Your task to perform on an android device: toggle airplane mode Image 0: 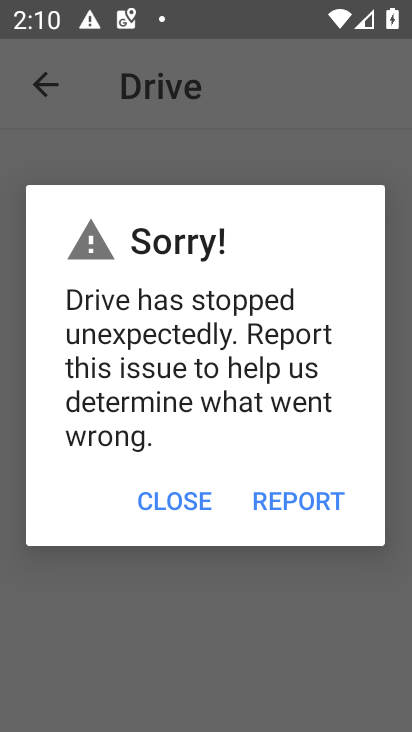
Step 0: press home button
Your task to perform on an android device: toggle airplane mode Image 1: 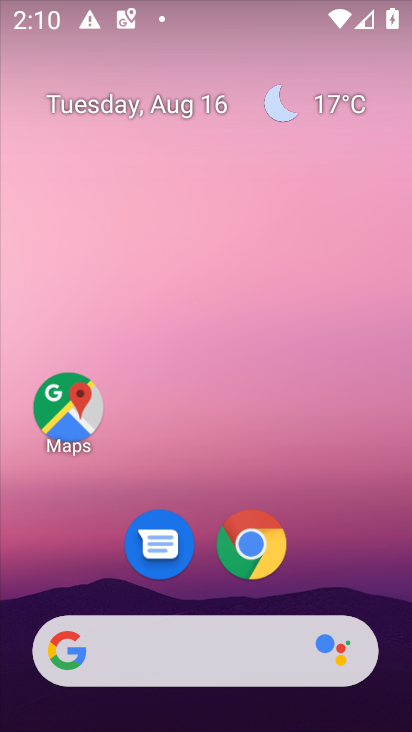
Step 1: drag from (176, 645) to (151, 104)
Your task to perform on an android device: toggle airplane mode Image 2: 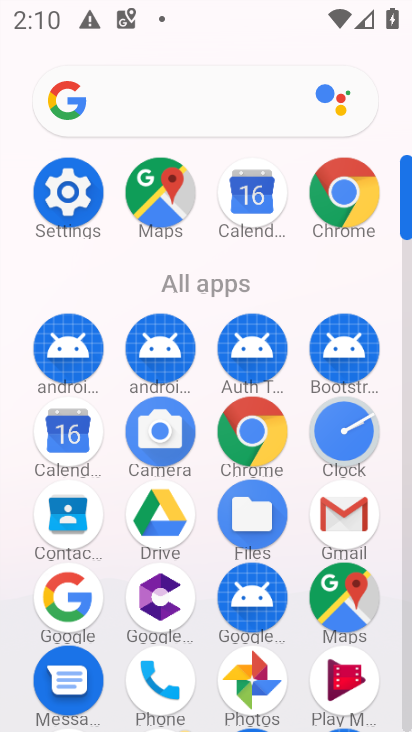
Step 2: click (67, 194)
Your task to perform on an android device: toggle airplane mode Image 3: 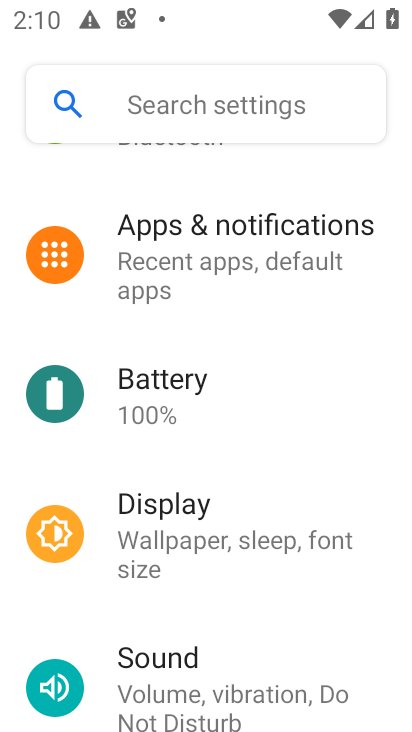
Step 3: drag from (221, 597) to (305, 467)
Your task to perform on an android device: toggle airplane mode Image 4: 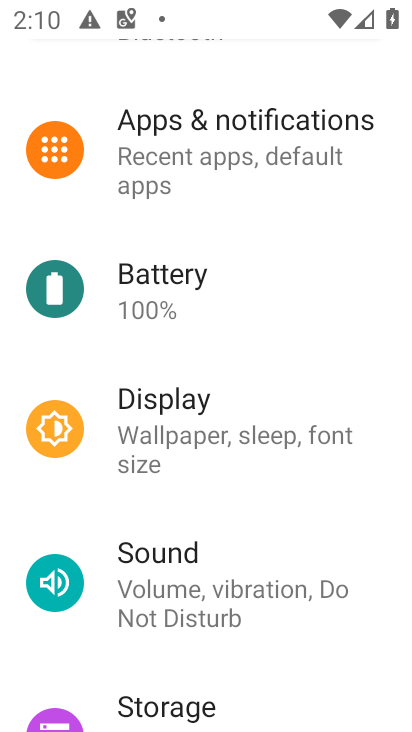
Step 4: drag from (193, 650) to (306, 502)
Your task to perform on an android device: toggle airplane mode Image 5: 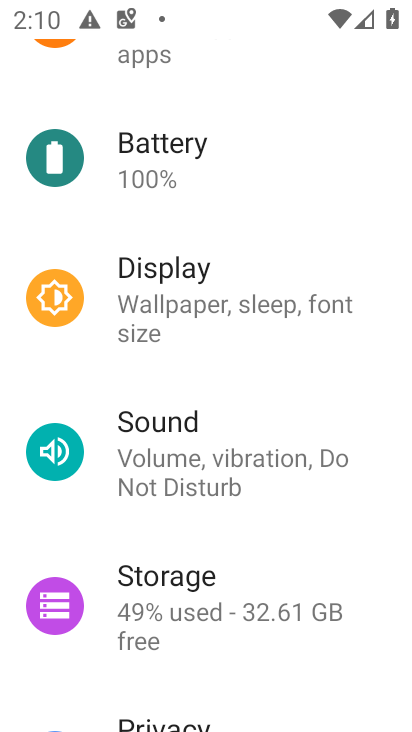
Step 5: drag from (231, 632) to (267, 505)
Your task to perform on an android device: toggle airplane mode Image 6: 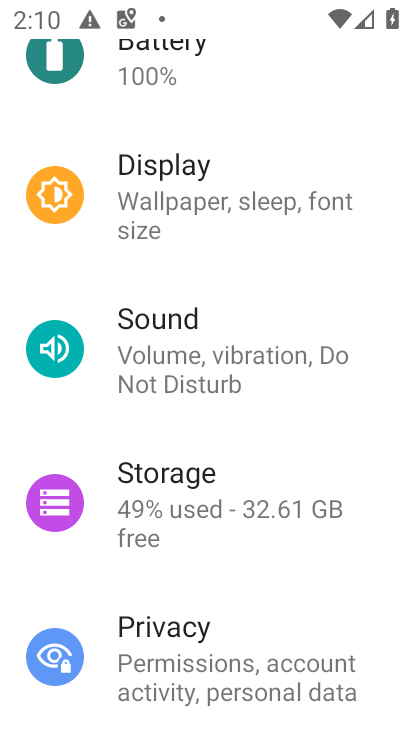
Step 6: drag from (196, 266) to (202, 499)
Your task to perform on an android device: toggle airplane mode Image 7: 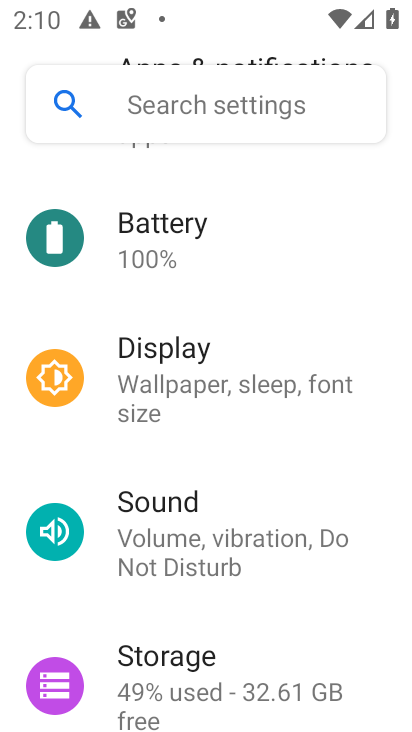
Step 7: drag from (203, 255) to (255, 438)
Your task to perform on an android device: toggle airplane mode Image 8: 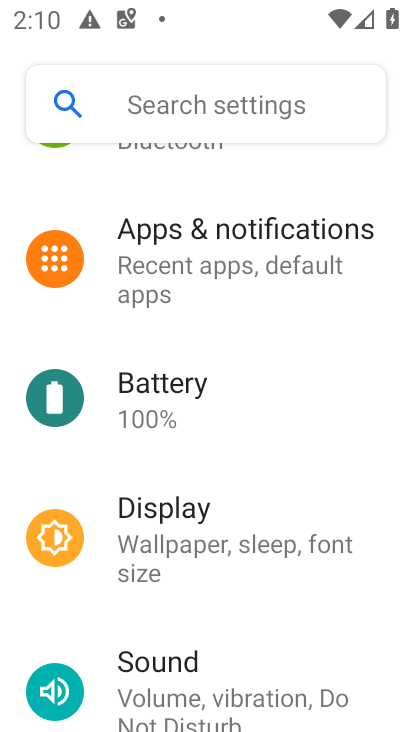
Step 8: drag from (216, 196) to (252, 419)
Your task to perform on an android device: toggle airplane mode Image 9: 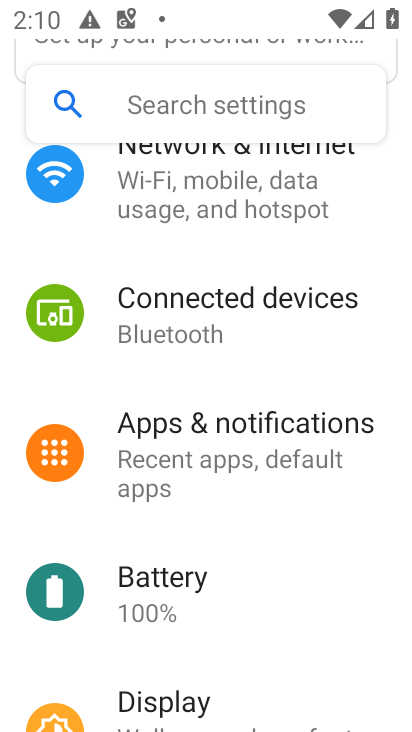
Step 9: drag from (223, 252) to (261, 408)
Your task to perform on an android device: toggle airplane mode Image 10: 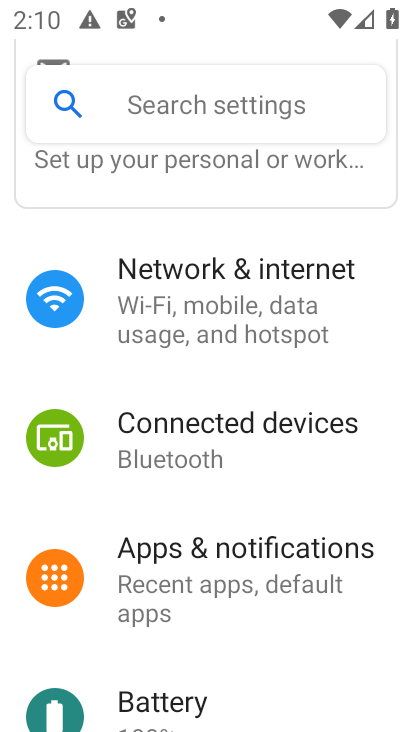
Step 10: click (238, 270)
Your task to perform on an android device: toggle airplane mode Image 11: 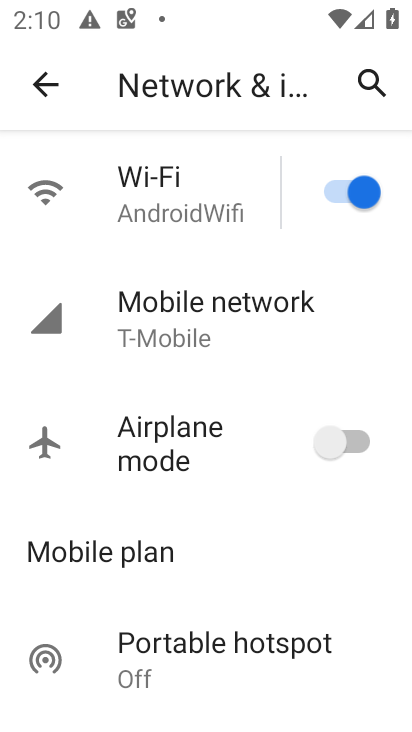
Step 11: click (350, 442)
Your task to perform on an android device: toggle airplane mode Image 12: 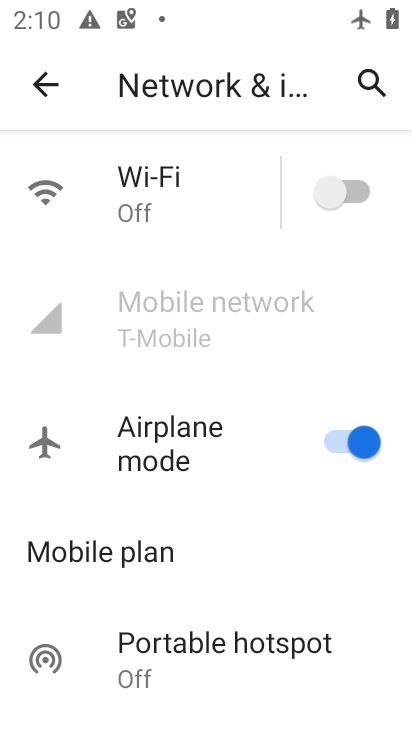
Step 12: task complete